Your task to perform on an android device: toggle improve location accuracy Image 0: 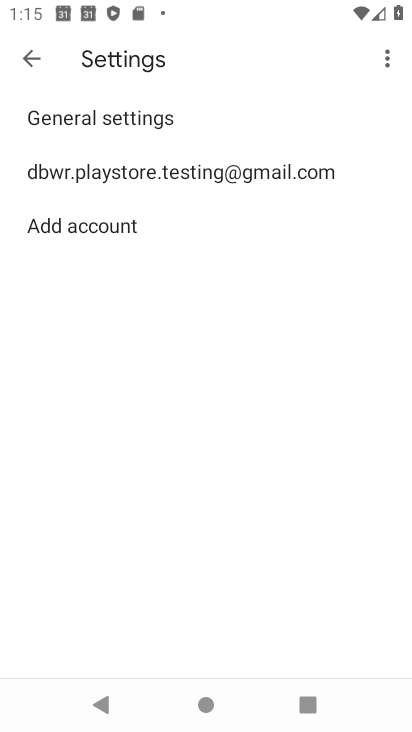
Step 0: press home button
Your task to perform on an android device: toggle improve location accuracy Image 1: 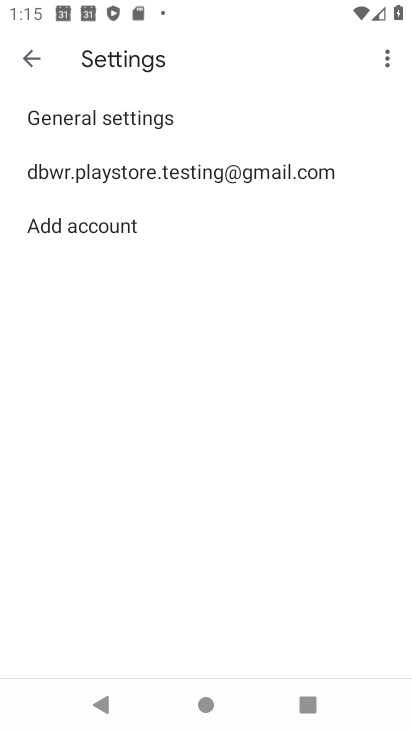
Step 1: drag from (265, 534) to (358, 96)
Your task to perform on an android device: toggle improve location accuracy Image 2: 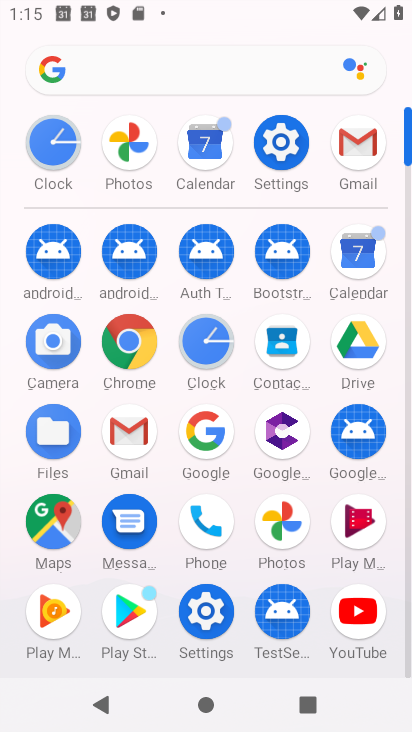
Step 2: click (276, 158)
Your task to perform on an android device: toggle improve location accuracy Image 3: 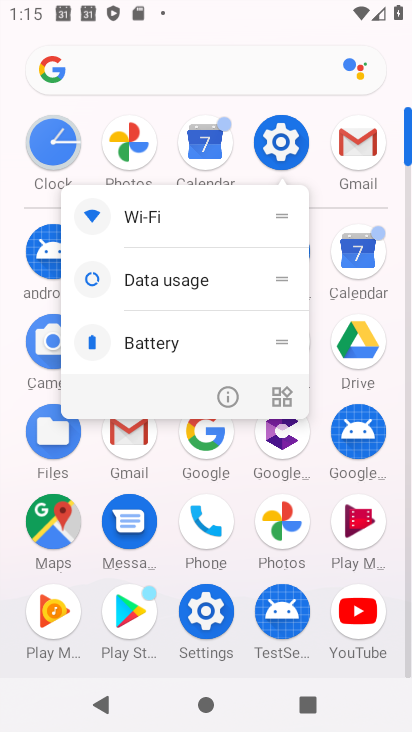
Step 3: click (233, 388)
Your task to perform on an android device: toggle improve location accuracy Image 4: 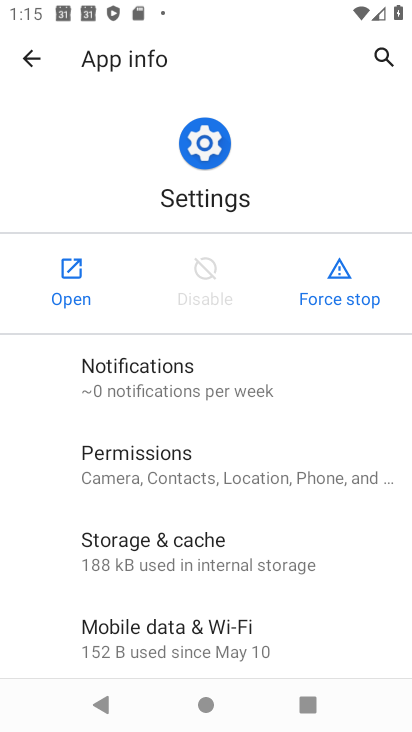
Step 4: click (90, 294)
Your task to perform on an android device: toggle improve location accuracy Image 5: 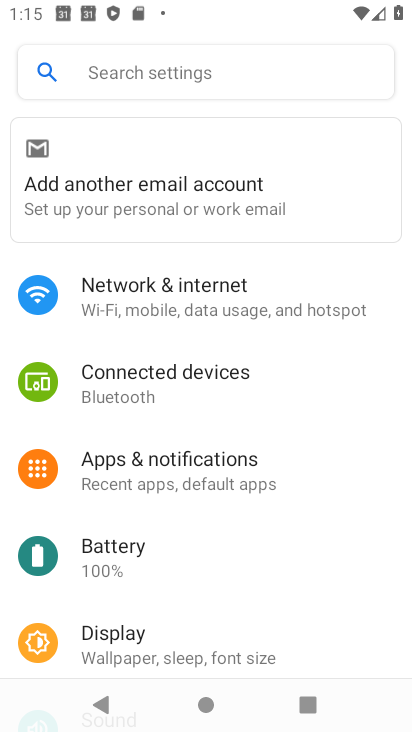
Step 5: drag from (229, 559) to (267, 254)
Your task to perform on an android device: toggle improve location accuracy Image 6: 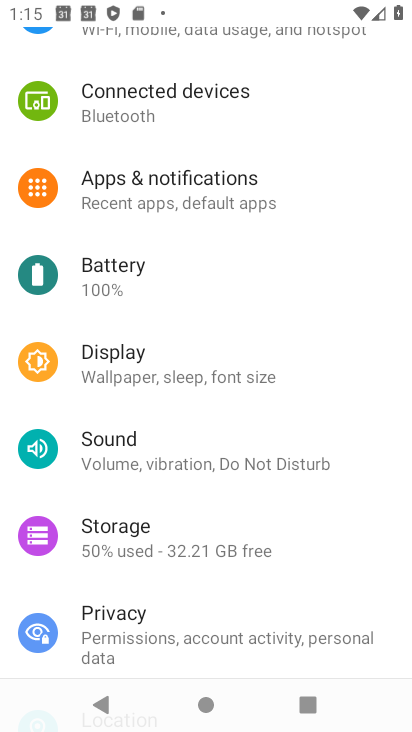
Step 6: drag from (197, 508) to (288, 169)
Your task to perform on an android device: toggle improve location accuracy Image 7: 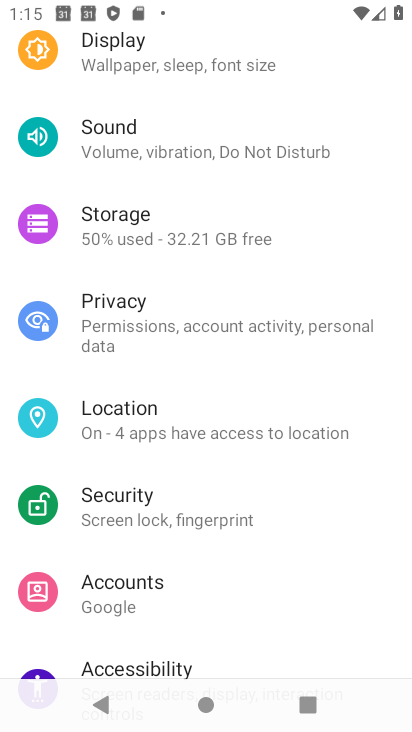
Step 7: drag from (182, 470) to (271, 138)
Your task to perform on an android device: toggle improve location accuracy Image 8: 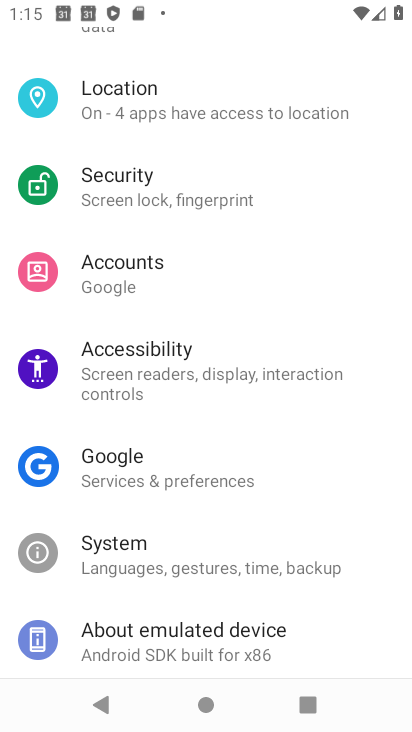
Step 8: click (174, 120)
Your task to perform on an android device: toggle improve location accuracy Image 9: 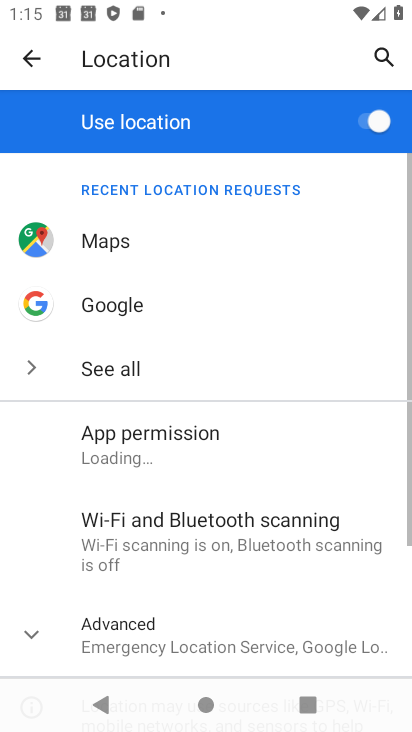
Step 9: drag from (276, 578) to (289, 35)
Your task to perform on an android device: toggle improve location accuracy Image 10: 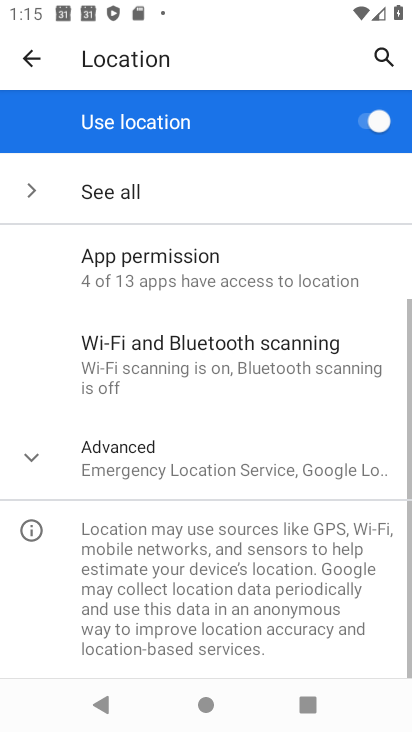
Step 10: click (182, 454)
Your task to perform on an android device: toggle improve location accuracy Image 11: 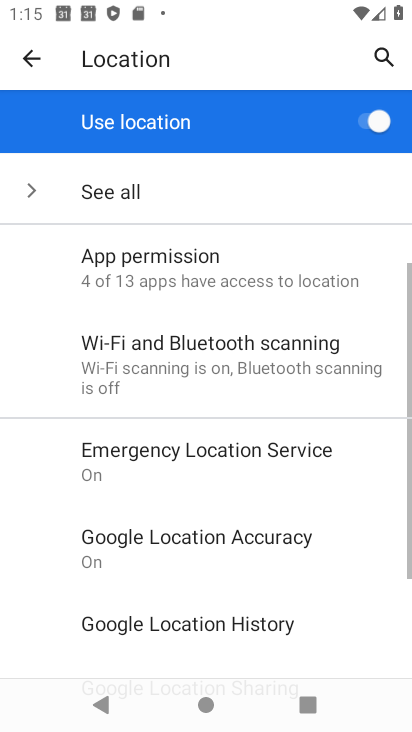
Step 11: drag from (174, 447) to (230, 146)
Your task to perform on an android device: toggle improve location accuracy Image 12: 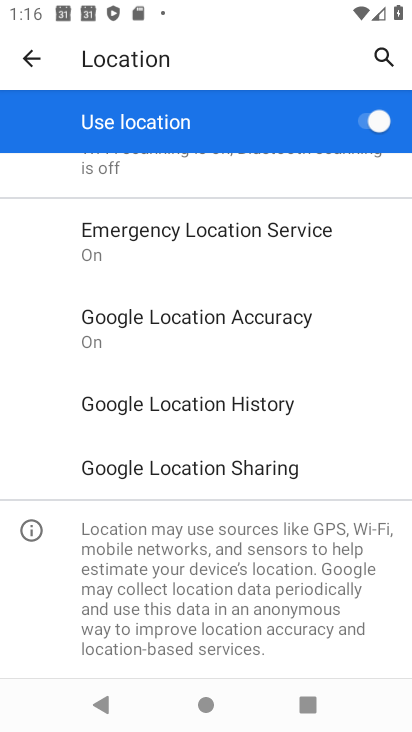
Step 12: click (154, 319)
Your task to perform on an android device: toggle improve location accuracy Image 13: 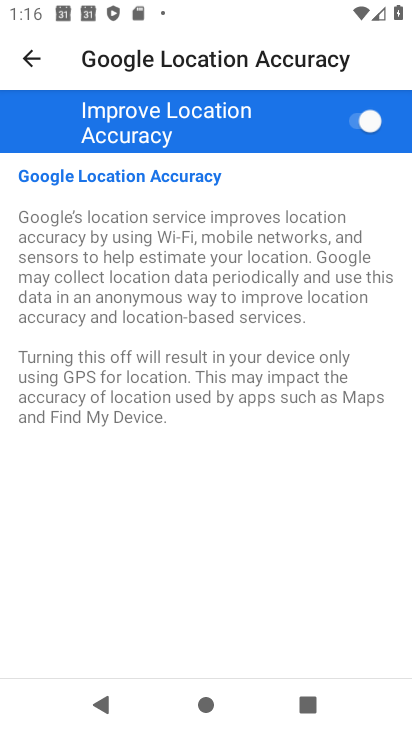
Step 13: drag from (152, 301) to (292, 51)
Your task to perform on an android device: toggle improve location accuracy Image 14: 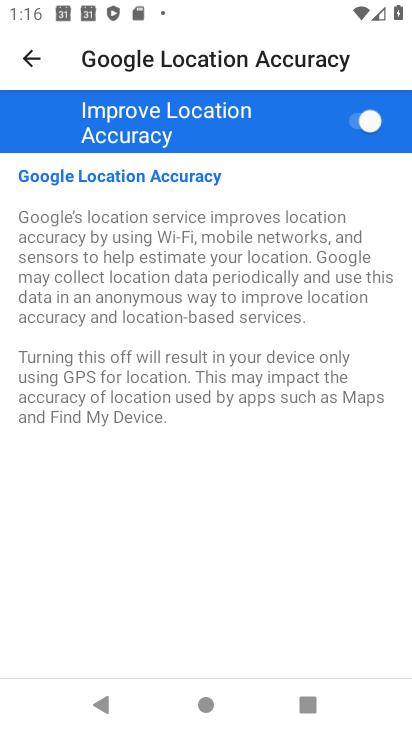
Step 14: click (371, 127)
Your task to perform on an android device: toggle improve location accuracy Image 15: 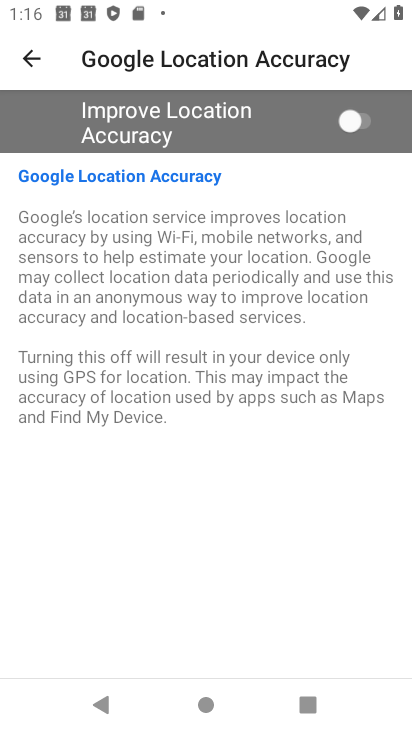
Step 15: task complete